Your task to perform on an android device: open a bookmark in the chrome app Image 0: 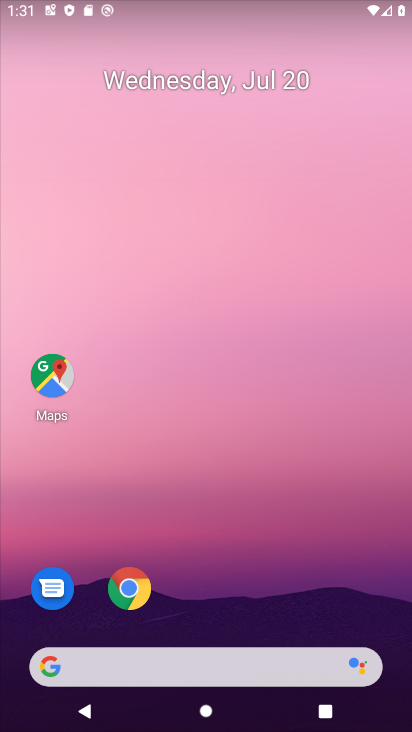
Step 0: drag from (376, 601) to (201, 31)
Your task to perform on an android device: open a bookmark in the chrome app Image 1: 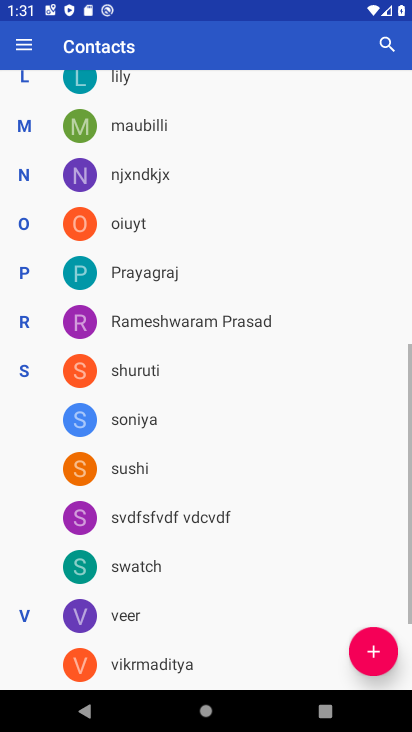
Step 1: press home button
Your task to perform on an android device: open a bookmark in the chrome app Image 2: 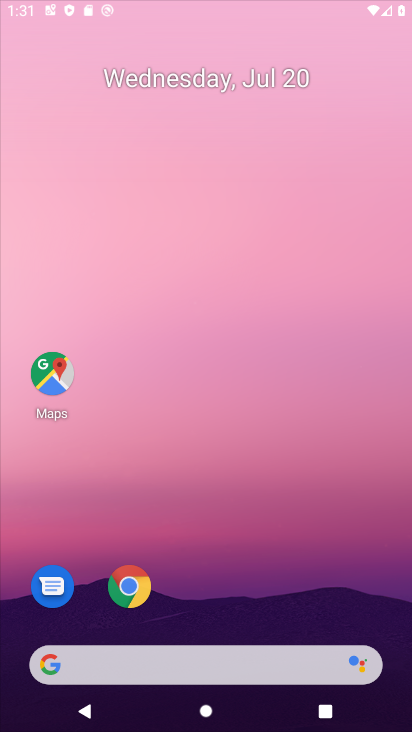
Step 2: drag from (396, 643) to (229, 15)
Your task to perform on an android device: open a bookmark in the chrome app Image 3: 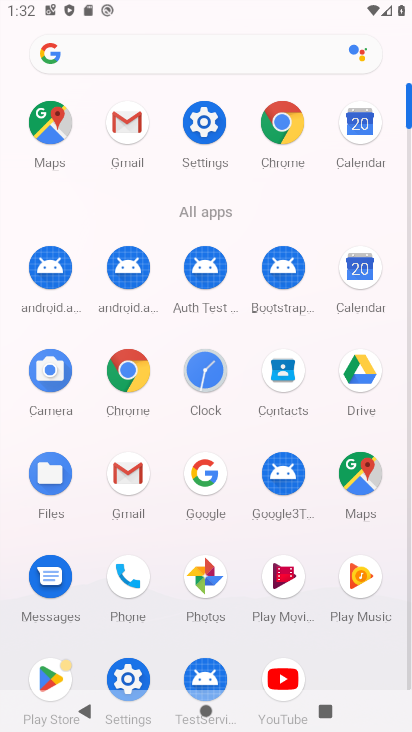
Step 3: click (119, 378)
Your task to perform on an android device: open a bookmark in the chrome app Image 4: 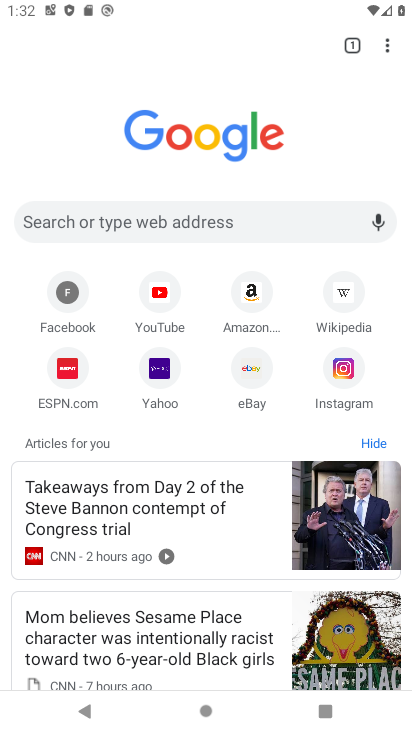
Step 4: click (386, 42)
Your task to perform on an android device: open a bookmark in the chrome app Image 5: 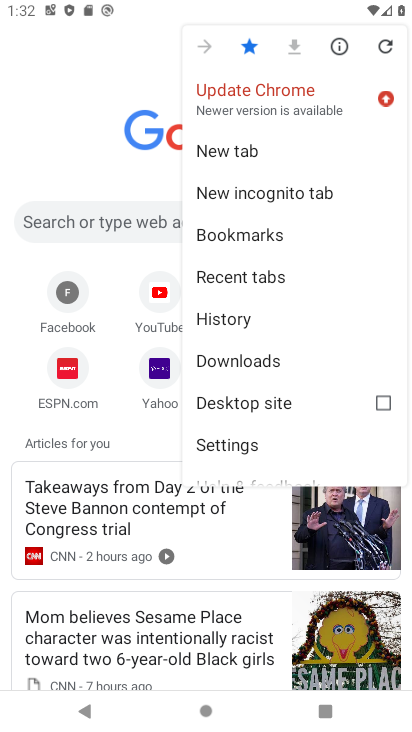
Step 5: click (222, 245)
Your task to perform on an android device: open a bookmark in the chrome app Image 6: 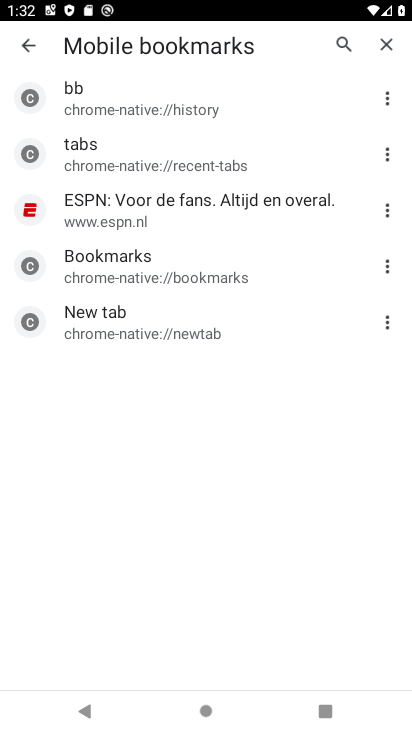
Step 6: task complete